Your task to perform on an android device: Go to battery settings Image 0: 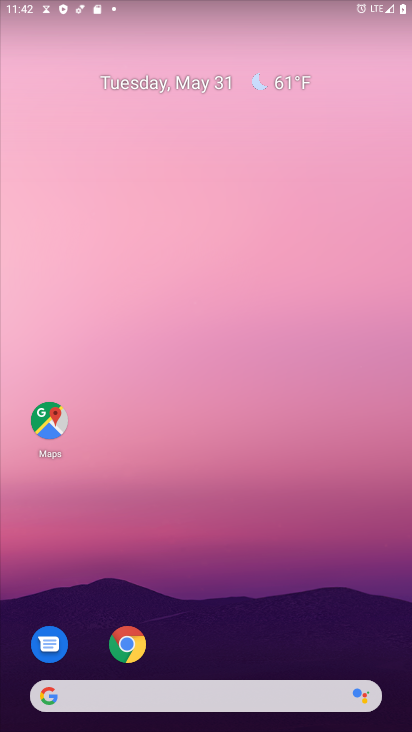
Step 0: drag from (180, 574) to (198, 140)
Your task to perform on an android device: Go to battery settings Image 1: 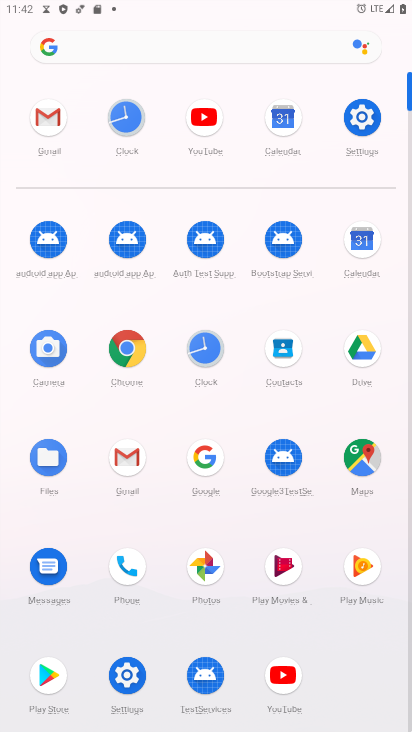
Step 1: click (361, 126)
Your task to perform on an android device: Go to battery settings Image 2: 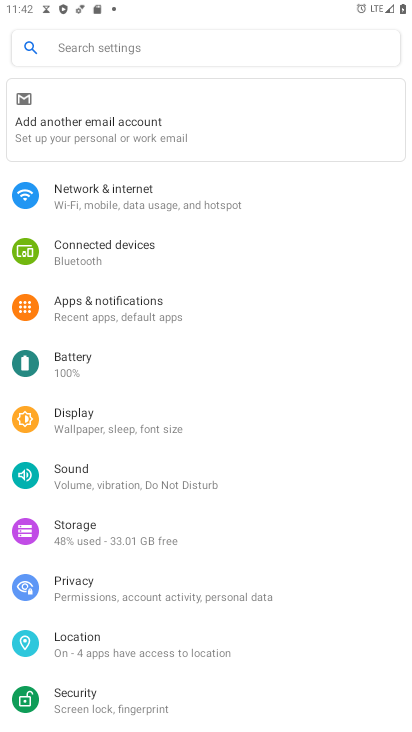
Step 2: click (96, 378)
Your task to perform on an android device: Go to battery settings Image 3: 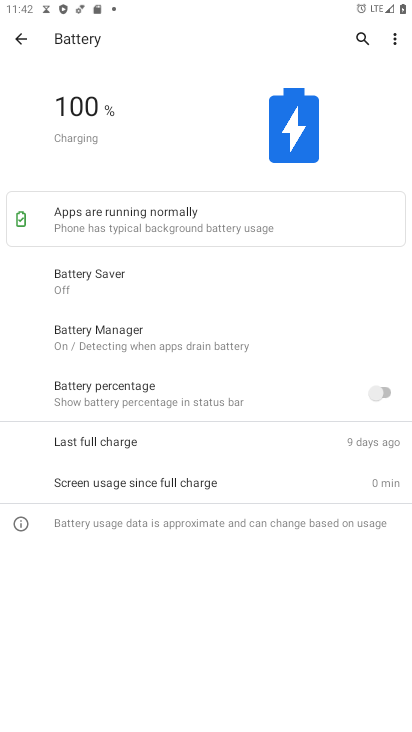
Step 3: task complete